Your task to perform on an android device: search for starred emails in the gmail app Image 0: 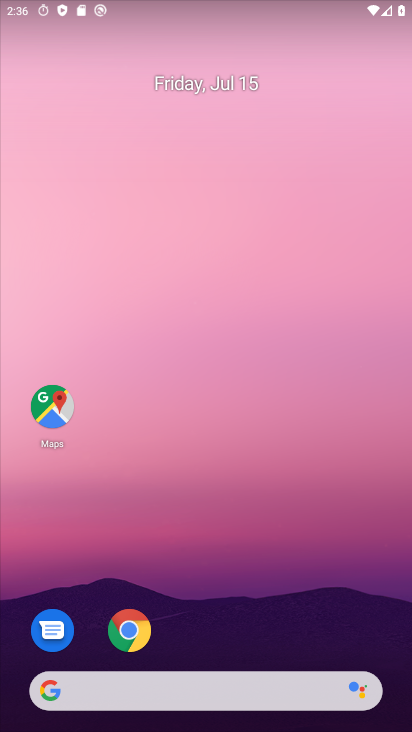
Step 0: drag from (321, 605) to (321, 159)
Your task to perform on an android device: search for starred emails in the gmail app Image 1: 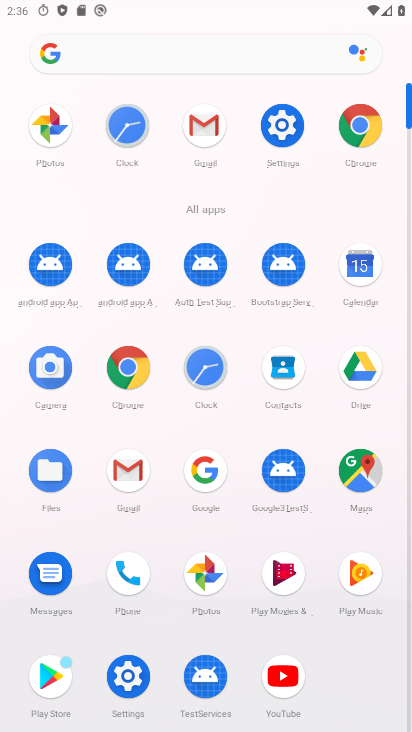
Step 1: click (206, 124)
Your task to perform on an android device: search for starred emails in the gmail app Image 2: 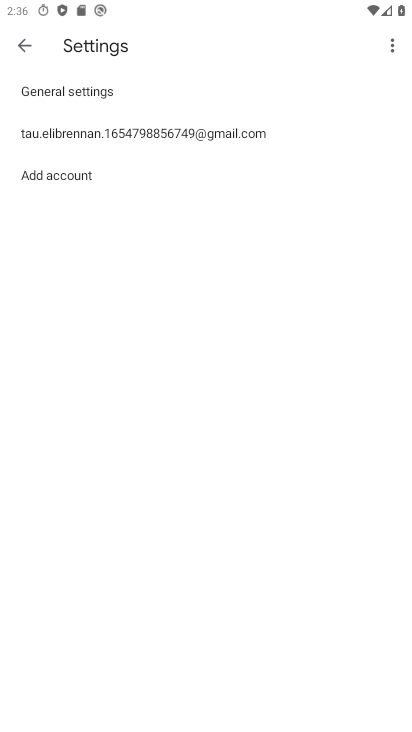
Step 2: click (34, 41)
Your task to perform on an android device: search for starred emails in the gmail app Image 3: 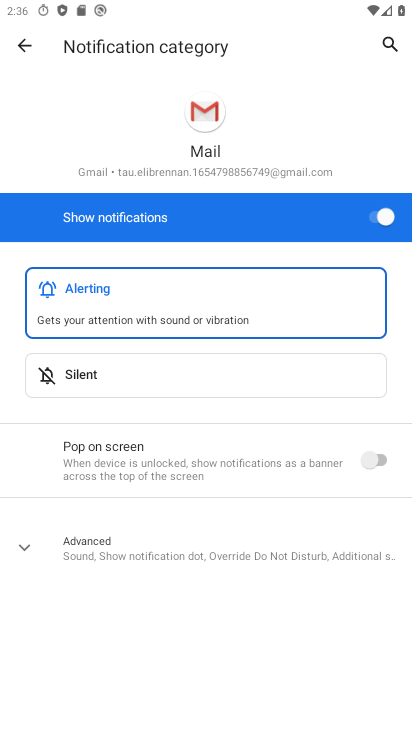
Step 3: click (18, 44)
Your task to perform on an android device: search for starred emails in the gmail app Image 4: 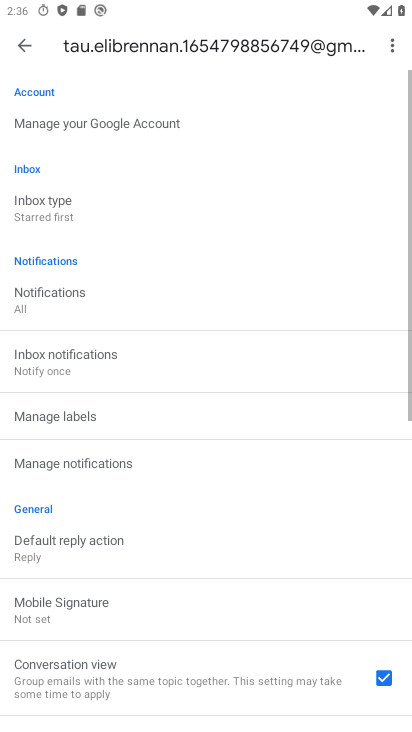
Step 4: click (21, 43)
Your task to perform on an android device: search for starred emails in the gmail app Image 5: 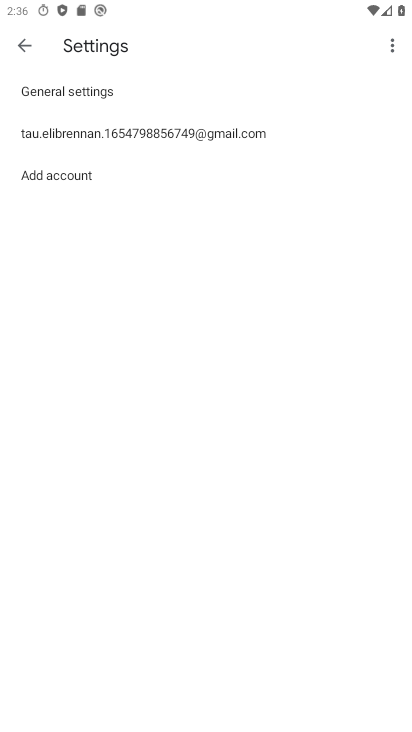
Step 5: click (21, 43)
Your task to perform on an android device: search for starred emails in the gmail app Image 6: 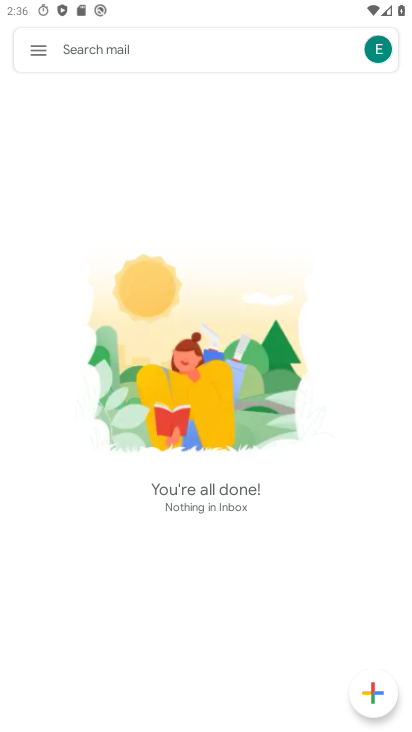
Step 6: click (43, 49)
Your task to perform on an android device: search for starred emails in the gmail app Image 7: 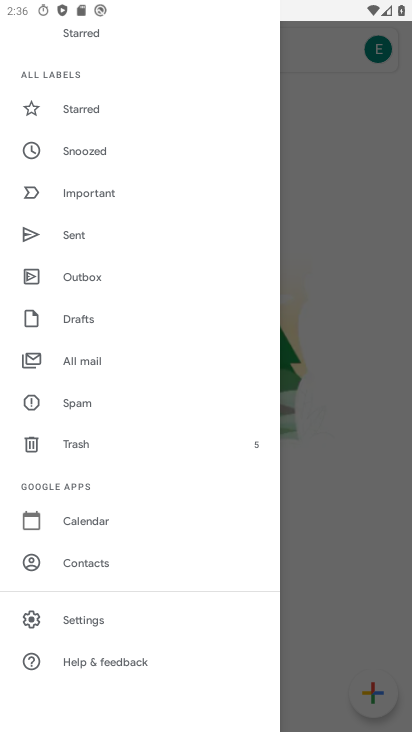
Step 7: click (73, 108)
Your task to perform on an android device: search for starred emails in the gmail app Image 8: 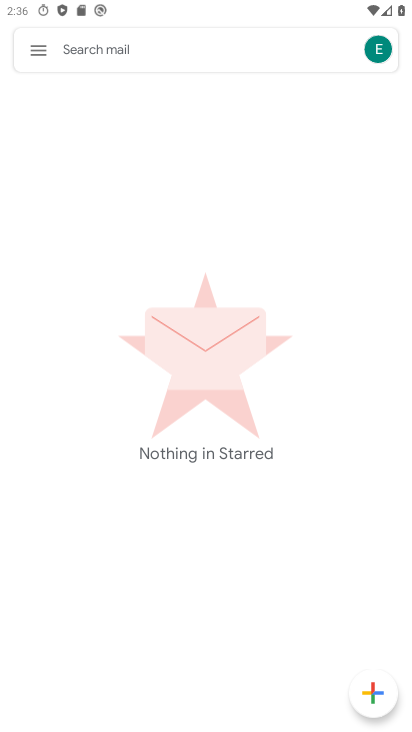
Step 8: task complete